Your task to perform on an android device: Open Reddit.com Image 0: 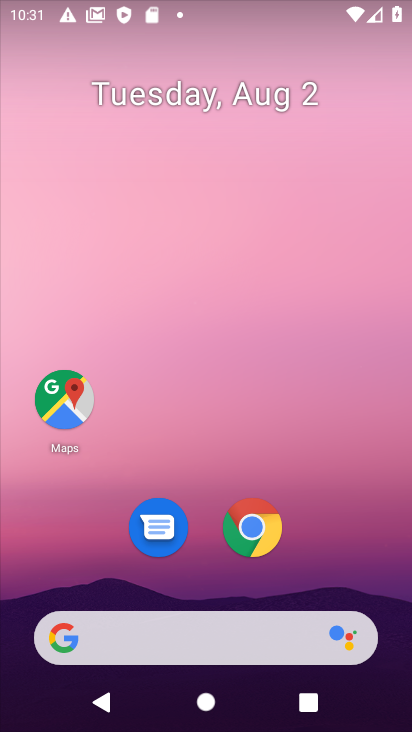
Step 0: press home button
Your task to perform on an android device: Open Reddit.com Image 1: 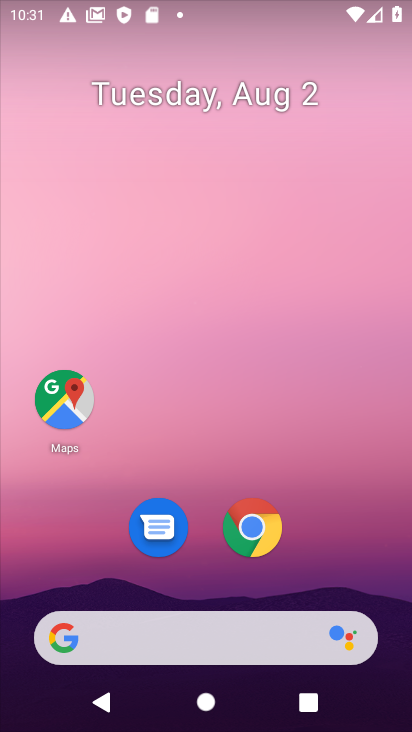
Step 1: drag from (207, 586) to (231, 22)
Your task to perform on an android device: Open Reddit.com Image 2: 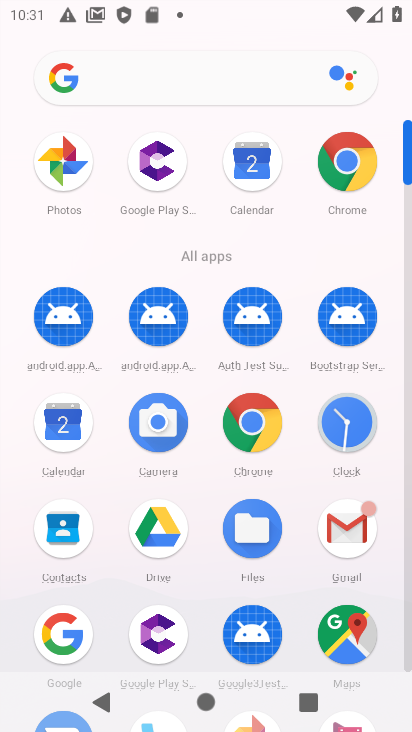
Step 2: click (340, 154)
Your task to perform on an android device: Open Reddit.com Image 3: 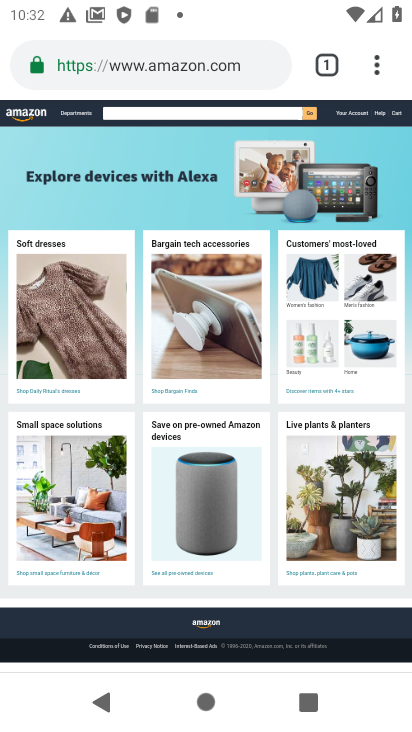
Step 3: click (329, 58)
Your task to perform on an android device: Open Reddit.com Image 4: 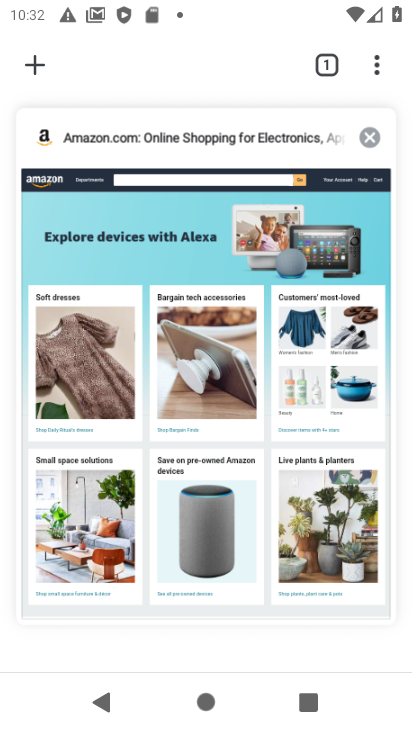
Step 4: click (40, 63)
Your task to perform on an android device: Open Reddit.com Image 5: 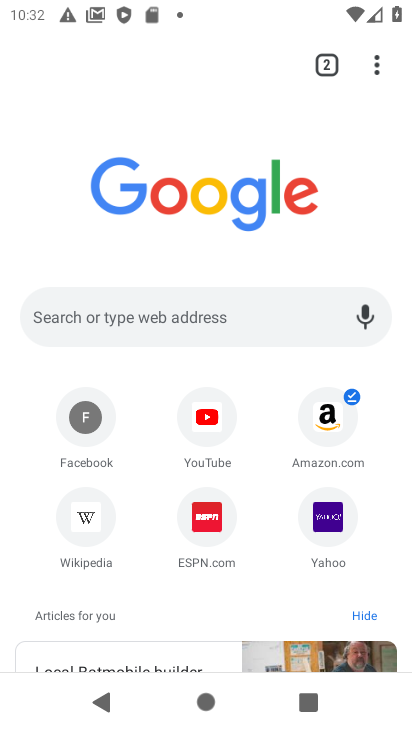
Step 5: click (98, 310)
Your task to perform on an android device: Open Reddit.com Image 6: 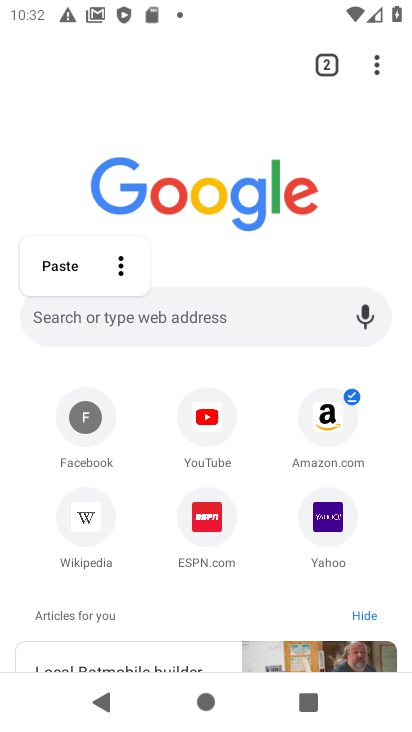
Step 6: type "reddit.com"
Your task to perform on an android device: Open Reddit.com Image 7: 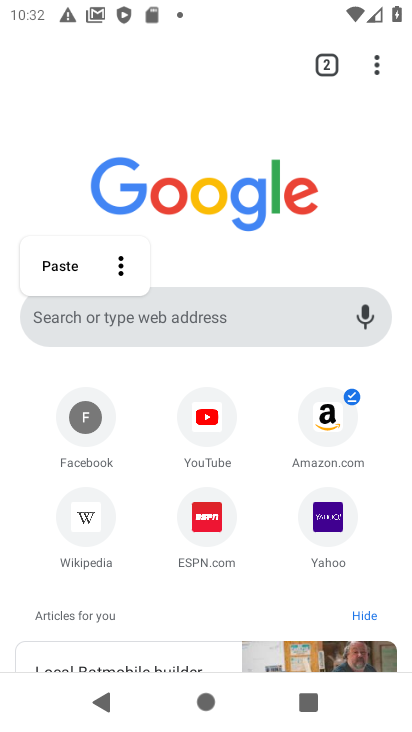
Step 7: click (110, 318)
Your task to perform on an android device: Open Reddit.com Image 8: 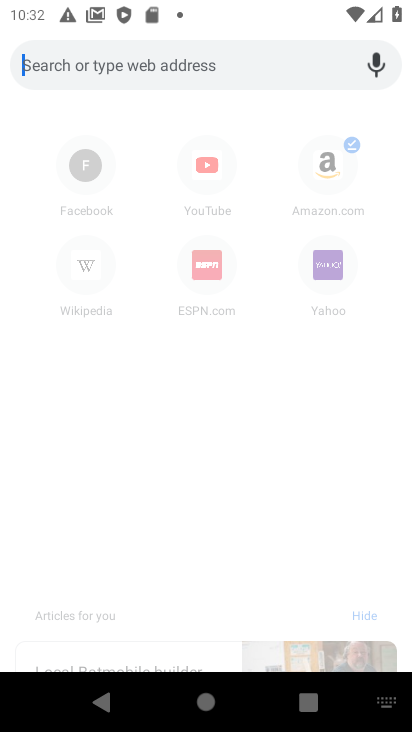
Step 8: type "reddit.com"
Your task to perform on an android device: Open Reddit.com Image 9: 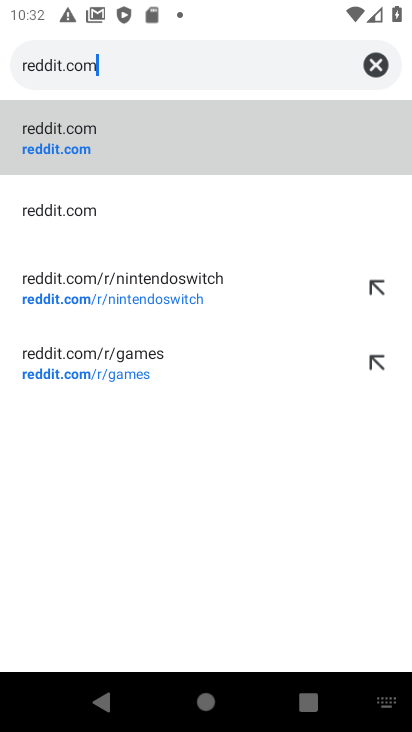
Step 9: click (79, 141)
Your task to perform on an android device: Open Reddit.com Image 10: 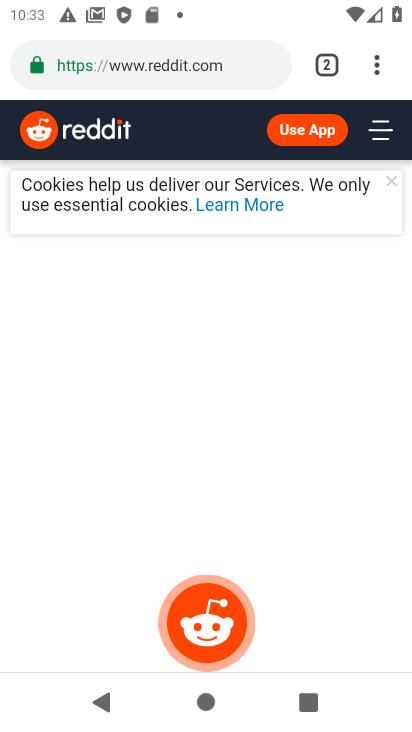
Step 10: task complete